Your task to perform on an android device: Go to Yahoo.com Image 0: 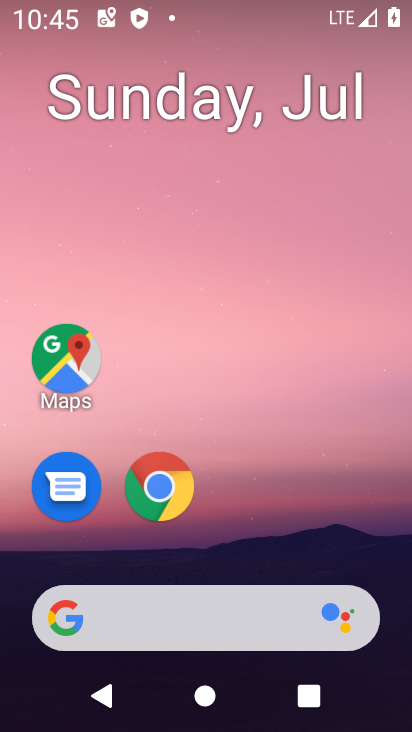
Step 0: press home button
Your task to perform on an android device: Go to Yahoo.com Image 1: 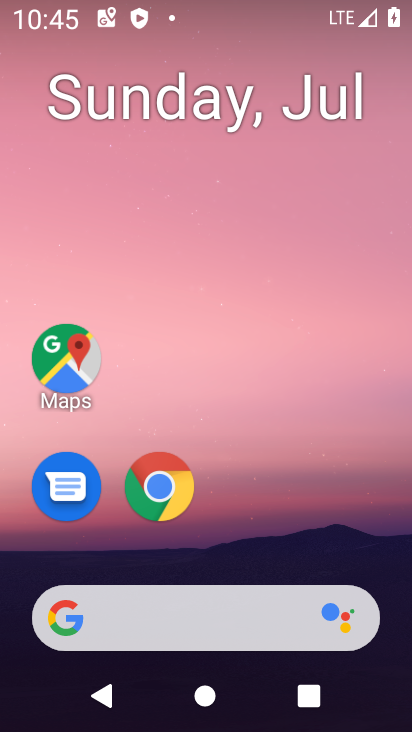
Step 1: drag from (369, 527) to (369, 60)
Your task to perform on an android device: Go to Yahoo.com Image 2: 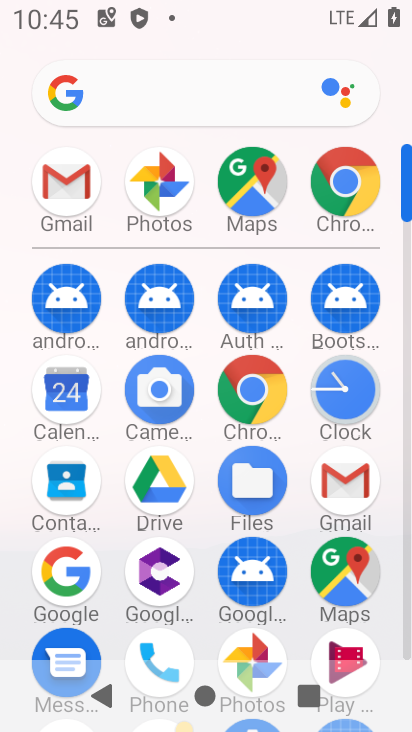
Step 2: click (251, 393)
Your task to perform on an android device: Go to Yahoo.com Image 3: 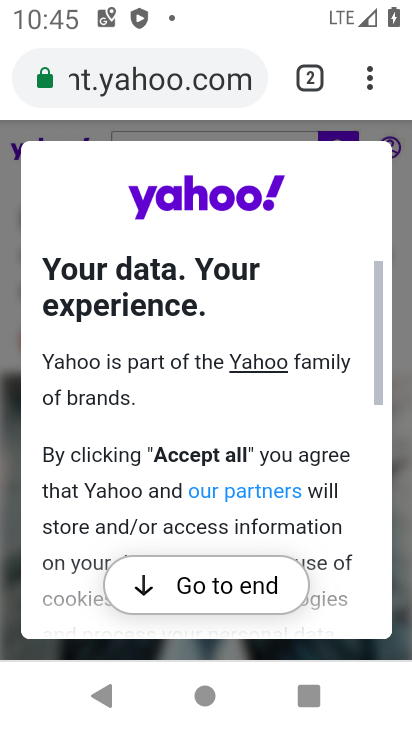
Step 3: task complete